Your task to perform on an android device: Search for seafood restaurants on Google Maps Image 0: 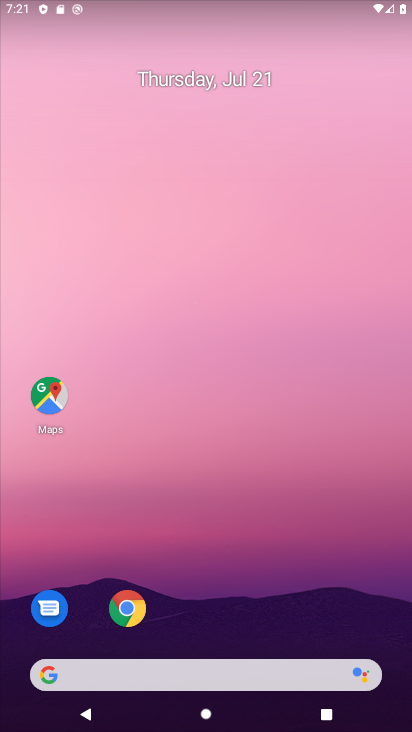
Step 0: click (52, 397)
Your task to perform on an android device: Search for seafood restaurants on Google Maps Image 1: 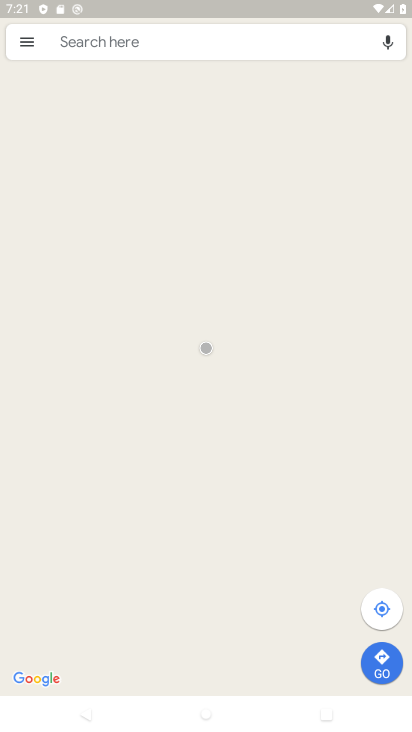
Step 1: click (184, 48)
Your task to perform on an android device: Search for seafood restaurants on Google Maps Image 2: 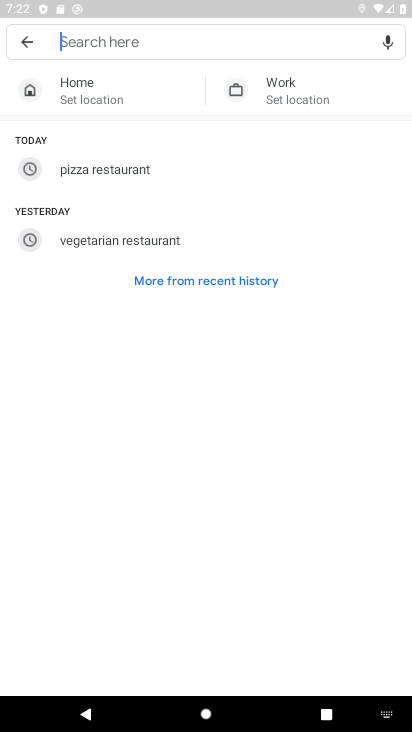
Step 2: type "Sea"
Your task to perform on an android device: Search for seafood restaurants on Google Maps Image 3: 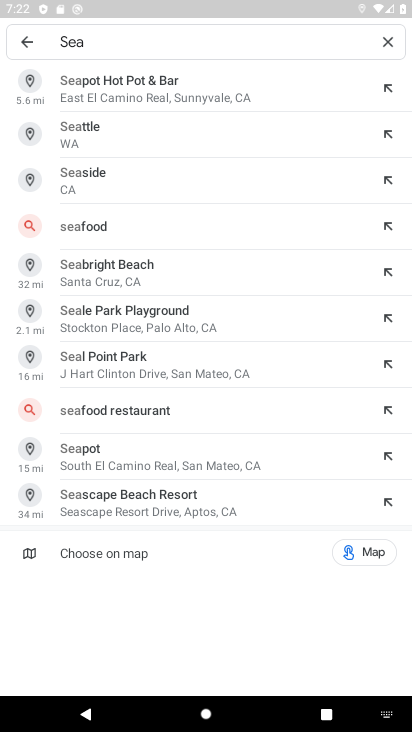
Step 3: type "food restaurants"
Your task to perform on an android device: Search for seafood restaurants on Google Maps Image 4: 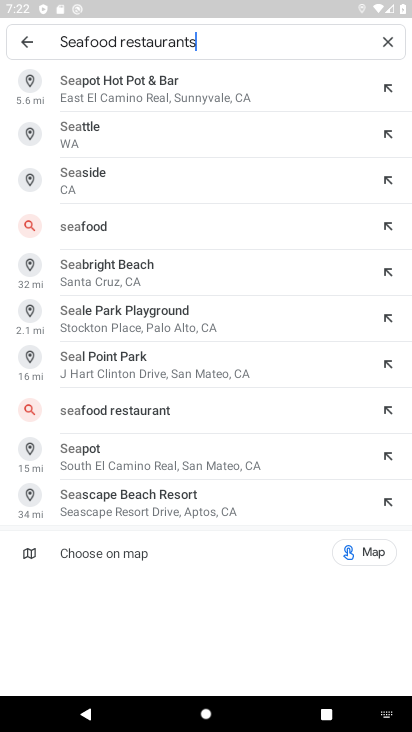
Step 4: type ""
Your task to perform on an android device: Search for seafood restaurants on Google Maps Image 5: 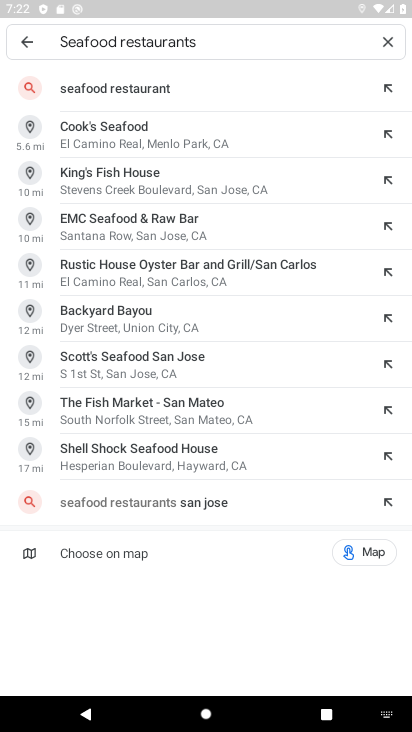
Step 5: click (140, 83)
Your task to perform on an android device: Search for seafood restaurants on Google Maps Image 6: 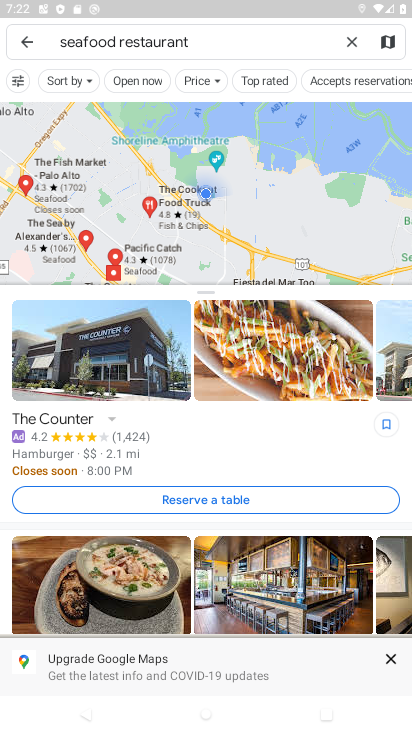
Step 6: task complete